Your task to perform on an android device: turn off improve location accuracy Image 0: 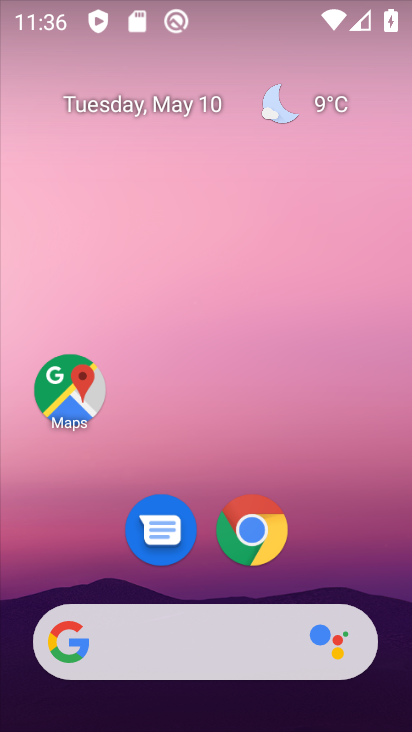
Step 0: drag from (308, 507) to (351, 13)
Your task to perform on an android device: turn off improve location accuracy Image 1: 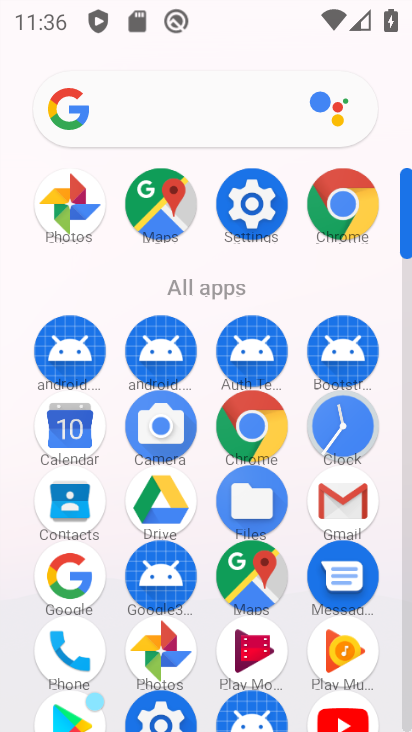
Step 1: click (253, 226)
Your task to perform on an android device: turn off improve location accuracy Image 2: 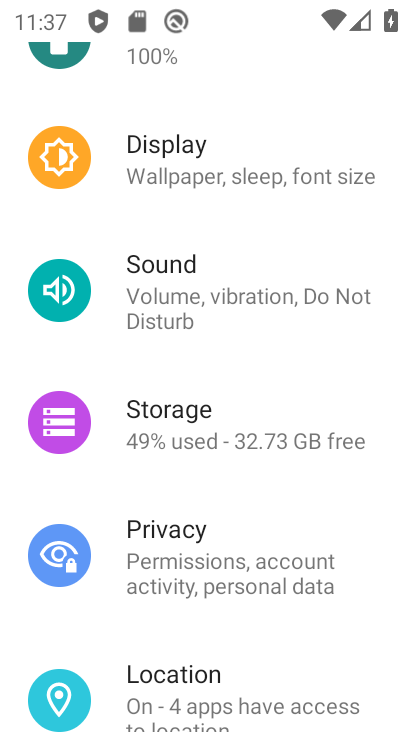
Step 2: drag from (307, 543) to (263, 283)
Your task to perform on an android device: turn off improve location accuracy Image 3: 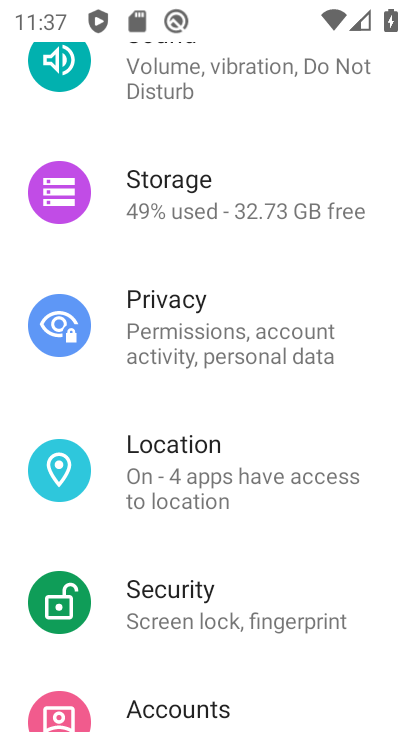
Step 3: click (237, 442)
Your task to perform on an android device: turn off improve location accuracy Image 4: 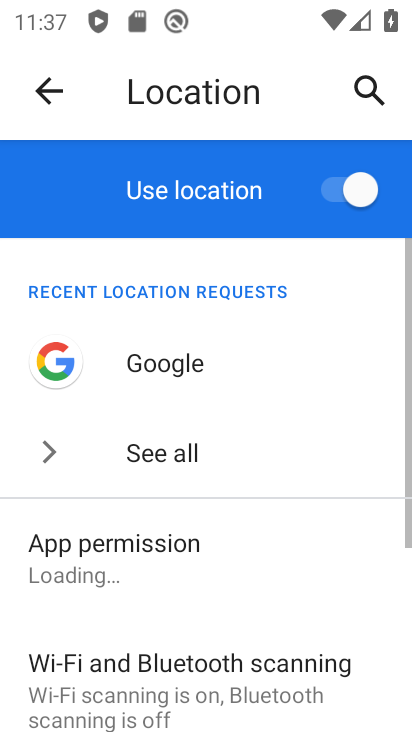
Step 4: drag from (188, 644) to (179, 124)
Your task to perform on an android device: turn off improve location accuracy Image 5: 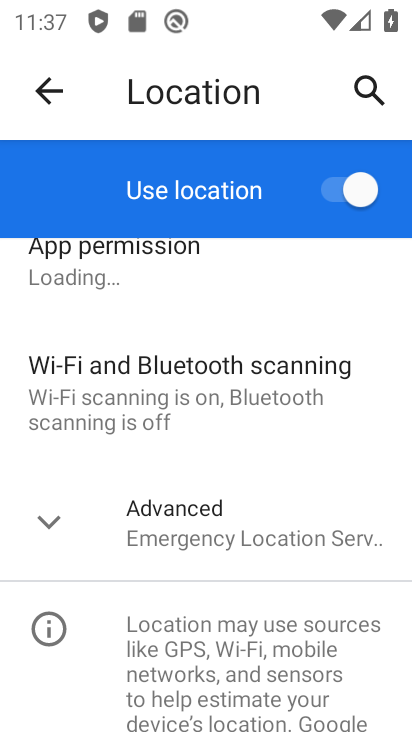
Step 5: click (163, 555)
Your task to perform on an android device: turn off improve location accuracy Image 6: 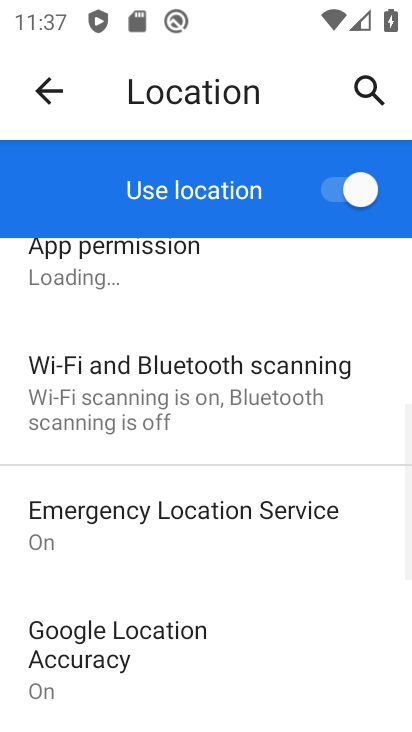
Step 6: click (165, 634)
Your task to perform on an android device: turn off improve location accuracy Image 7: 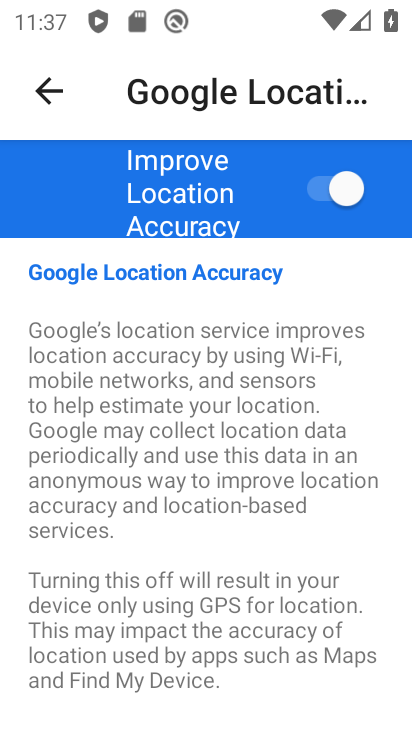
Step 7: click (356, 202)
Your task to perform on an android device: turn off improve location accuracy Image 8: 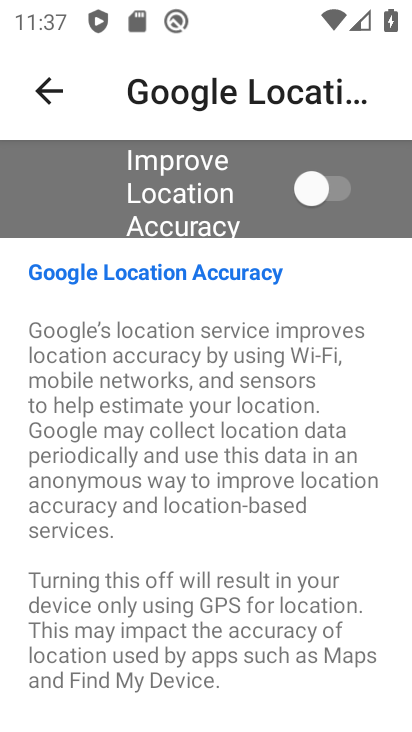
Step 8: task complete